Your task to perform on an android device: turn off location history Image 0: 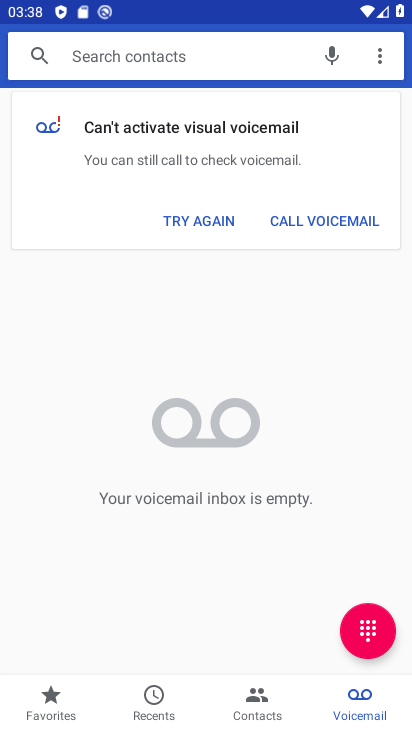
Step 0: press home button
Your task to perform on an android device: turn off location history Image 1: 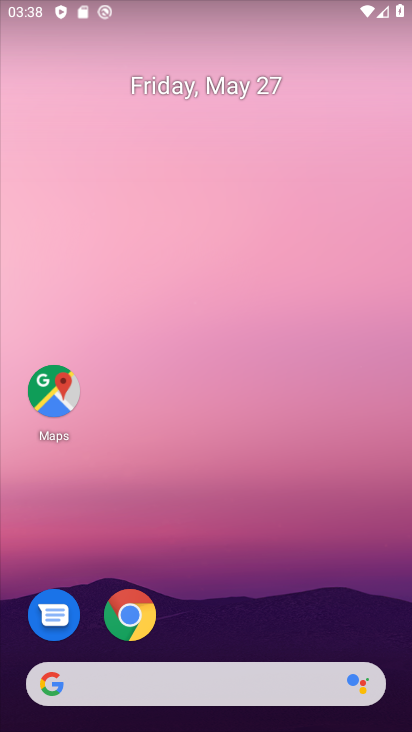
Step 1: drag from (89, 728) to (295, 2)
Your task to perform on an android device: turn off location history Image 2: 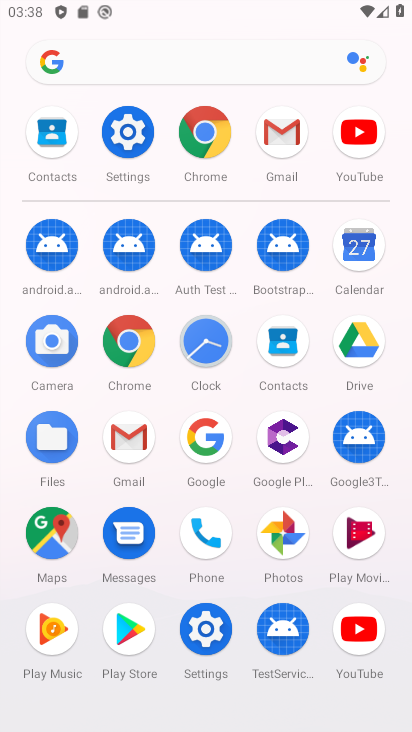
Step 2: click (210, 635)
Your task to perform on an android device: turn off location history Image 3: 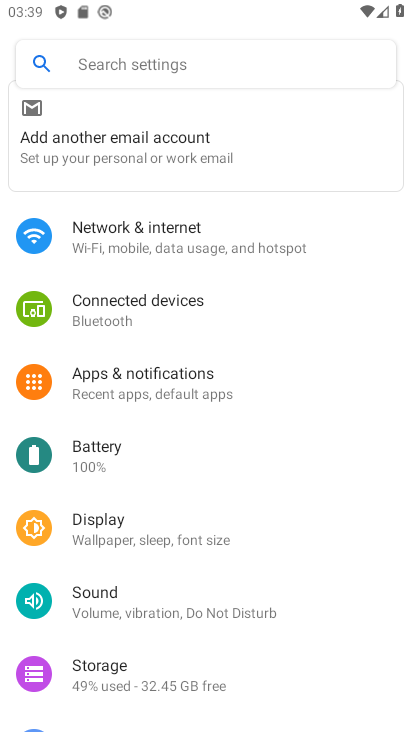
Step 3: drag from (240, 704) to (232, 223)
Your task to perform on an android device: turn off location history Image 4: 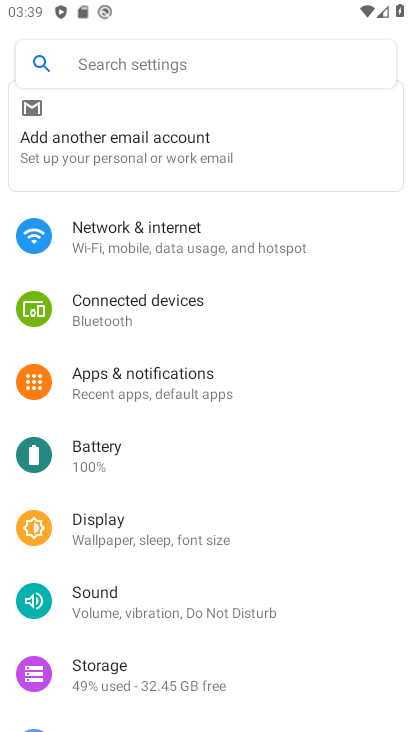
Step 4: drag from (331, 669) to (274, 210)
Your task to perform on an android device: turn off location history Image 5: 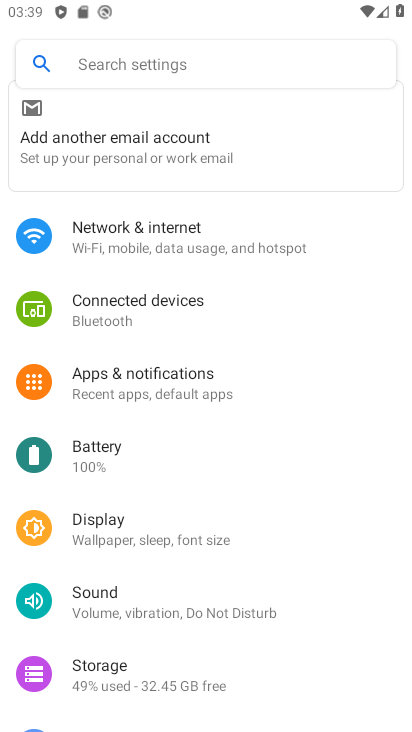
Step 5: drag from (305, 697) to (230, 162)
Your task to perform on an android device: turn off location history Image 6: 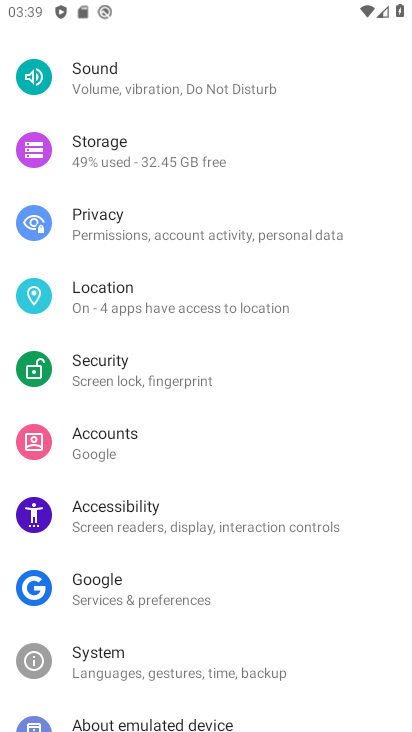
Step 6: click (116, 309)
Your task to perform on an android device: turn off location history Image 7: 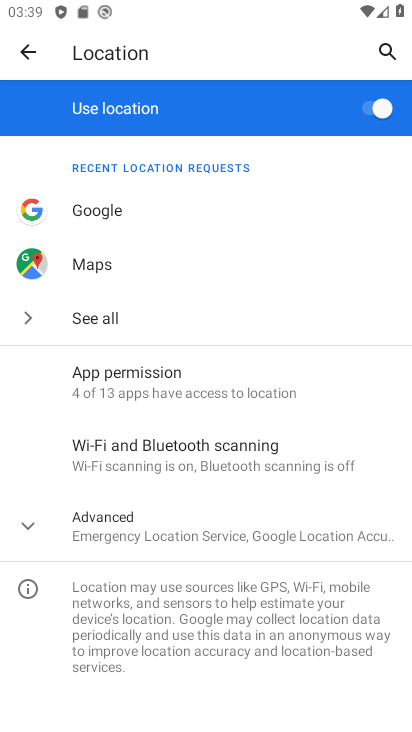
Step 7: click (180, 538)
Your task to perform on an android device: turn off location history Image 8: 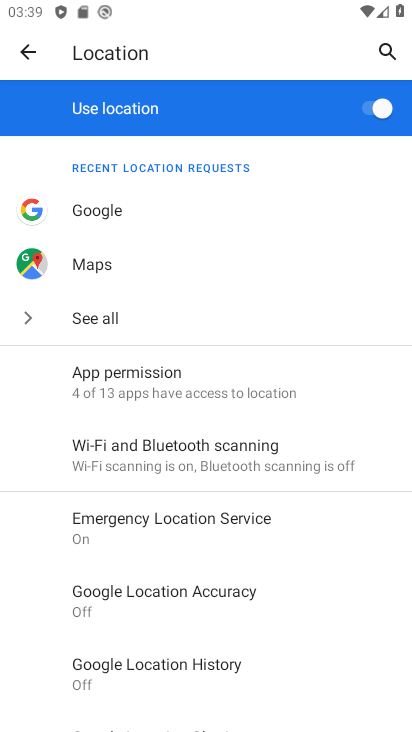
Step 8: click (212, 665)
Your task to perform on an android device: turn off location history Image 9: 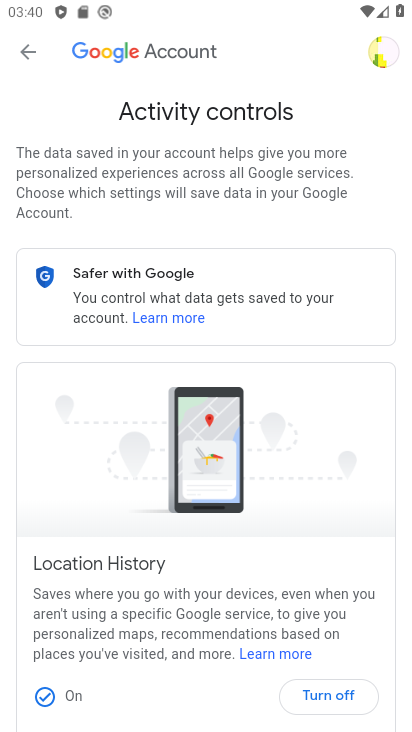
Step 9: click (331, 687)
Your task to perform on an android device: turn off location history Image 10: 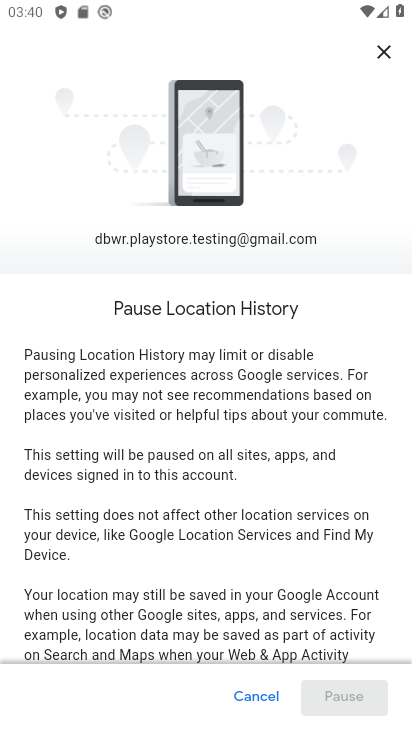
Step 10: drag from (322, 621) to (302, 181)
Your task to perform on an android device: turn off location history Image 11: 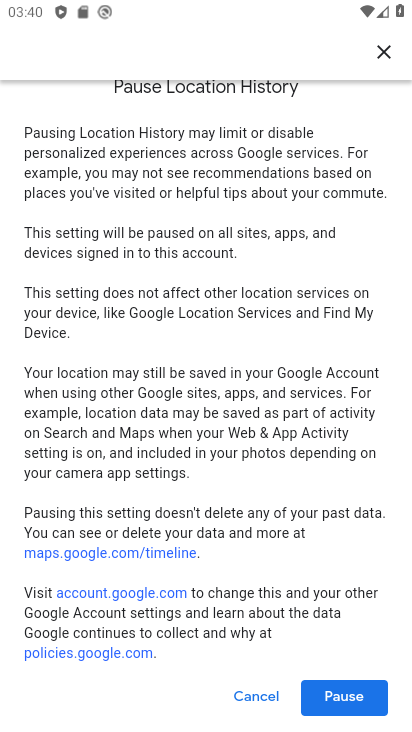
Step 11: click (345, 698)
Your task to perform on an android device: turn off location history Image 12: 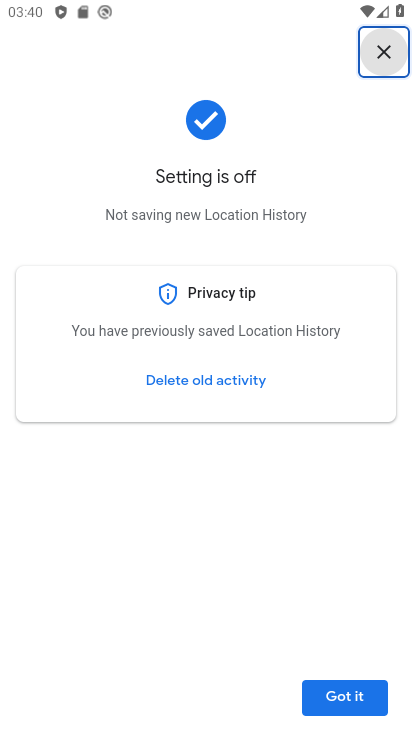
Step 12: click (360, 700)
Your task to perform on an android device: turn off location history Image 13: 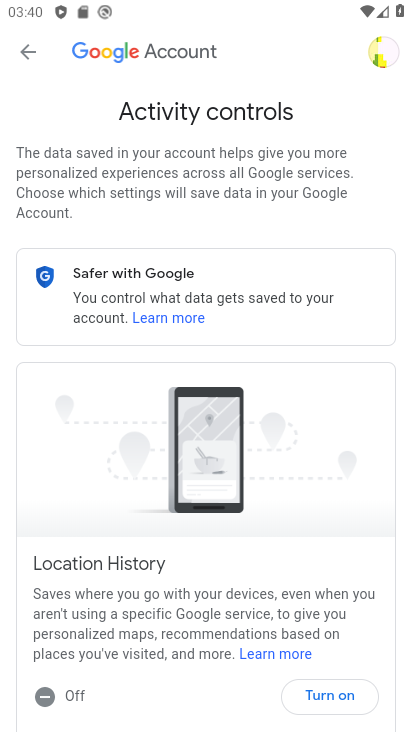
Step 13: task complete